Your task to perform on an android device: turn vacation reply on in the gmail app Image 0: 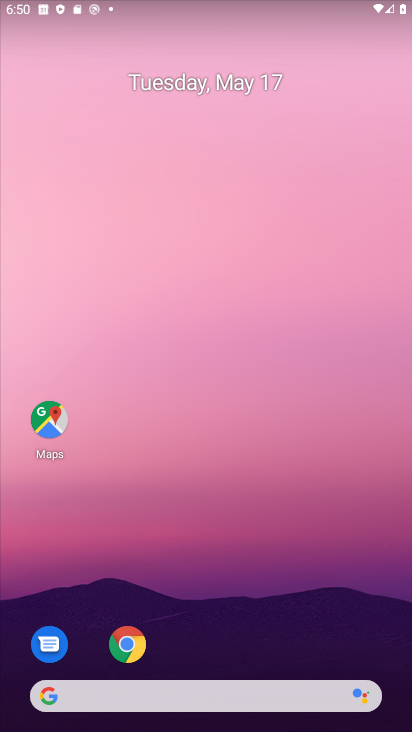
Step 0: drag from (338, 546) to (289, 231)
Your task to perform on an android device: turn vacation reply on in the gmail app Image 1: 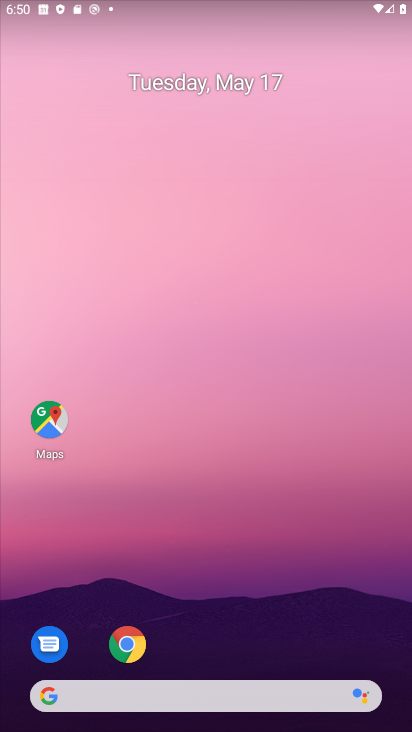
Step 1: drag from (240, 609) to (271, 63)
Your task to perform on an android device: turn vacation reply on in the gmail app Image 2: 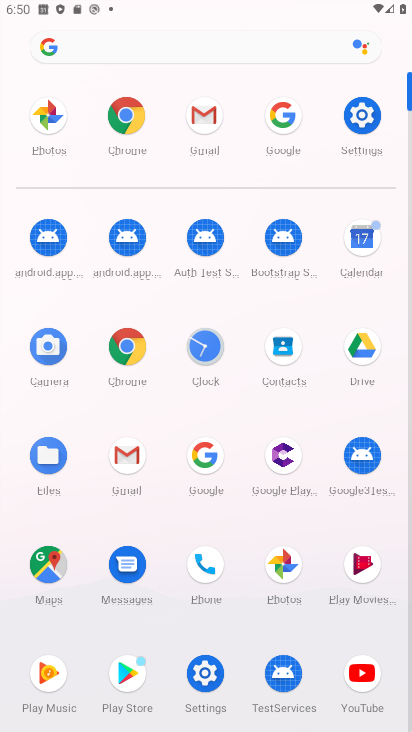
Step 2: click (118, 464)
Your task to perform on an android device: turn vacation reply on in the gmail app Image 3: 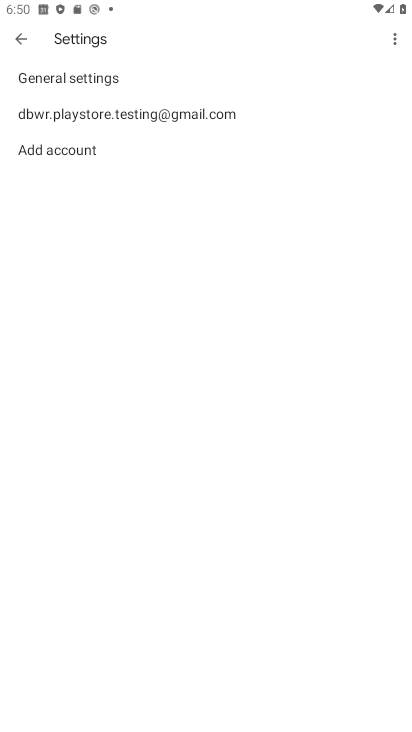
Step 3: click (192, 116)
Your task to perform on an android device: turn vacation reply on in the gmail app Image 4: 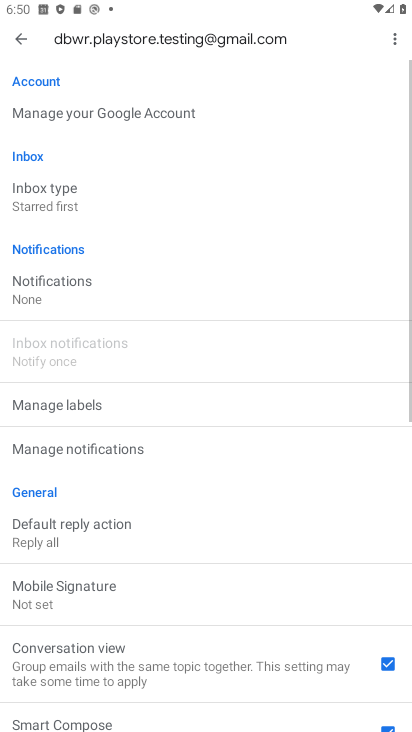
Step 4: drag from (183, 606) to (226, 142)
Your task to perform on an android device: turn vacation reply on in the gmail app Image 5: 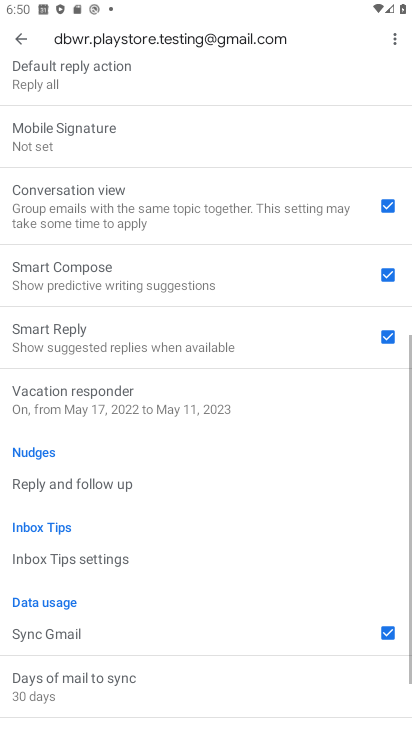
Step 5: click (191, 407)
Your task to perform on an android device: turn vacation reply on in the gmail app Image 6: 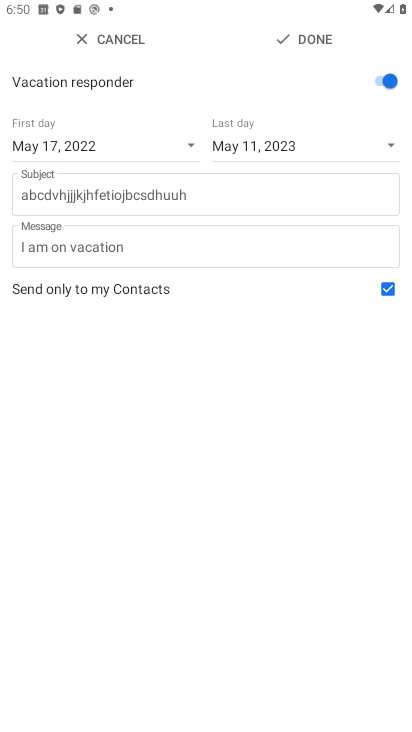
Step 6: task complete